Your task to perform on an android device: toggle priority inbox in the gmail app Image 0: 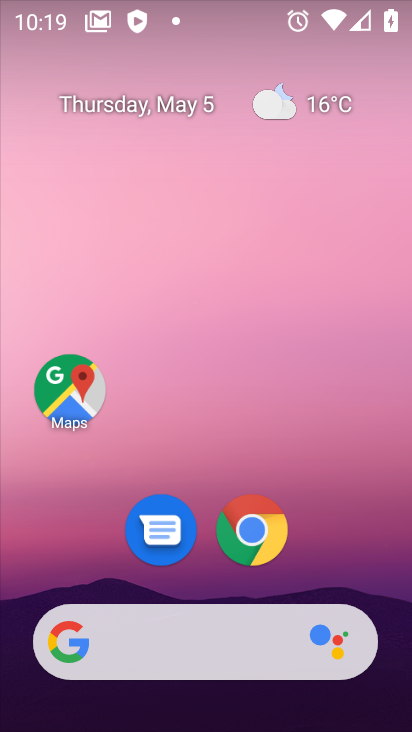
Step 0: drag from (351, 550) to (277, 233)
Your task to perform on an android device: toggle priority inbox in the gmail app Image 1: 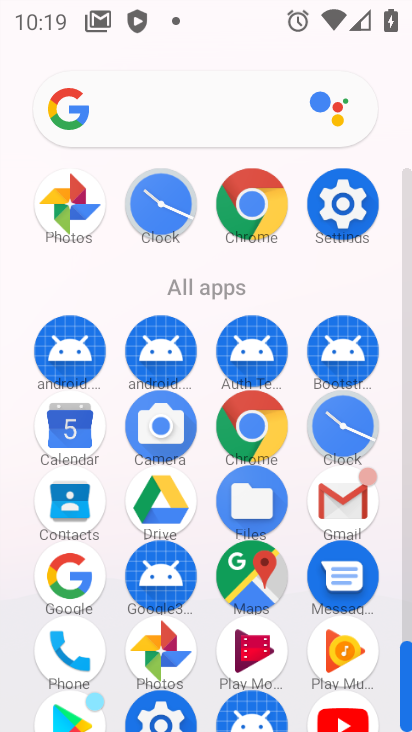
Step 1: click (354, 513)
Your task to perform on an android device: toggle priority inbox in the gmail app Image 2: 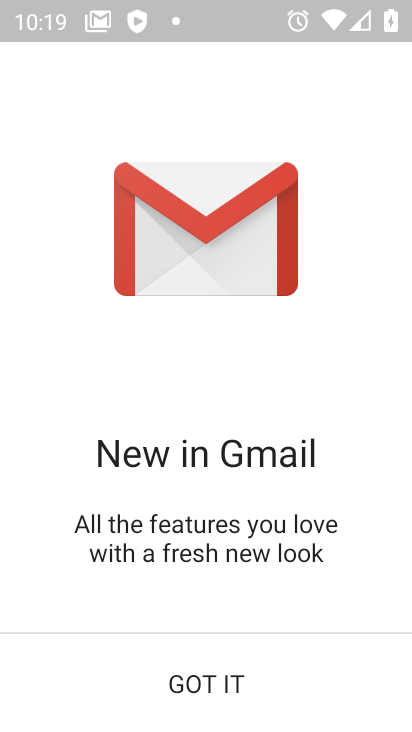
Step 2: click (251, 680)
Your task to perform on an android device: toggle priority inbox in the gmail app Image 3: 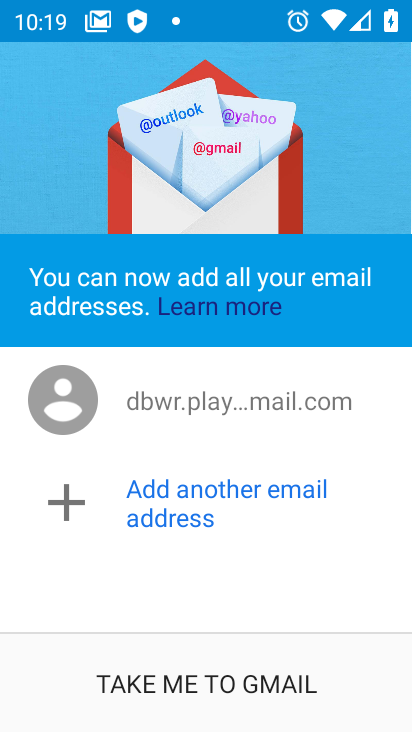
Step 3: click (251, 680)
Your task to perform on an android device: toggle priority inbox in the gmail app Image 4: 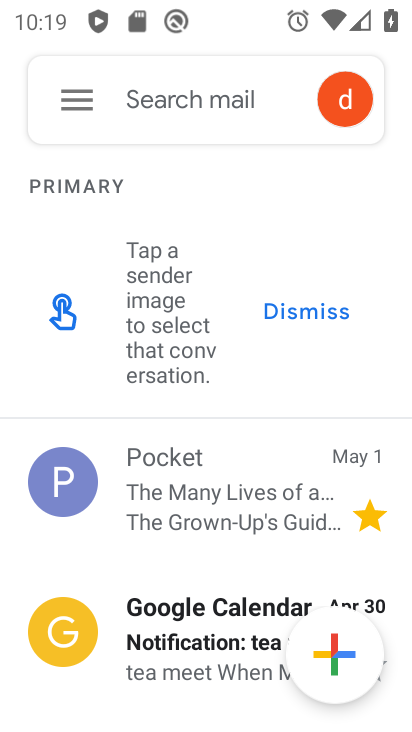
Step 4: click (75, 101)
Your task to perform on an android device: toggle priority inbox in the gmail app Image 5: 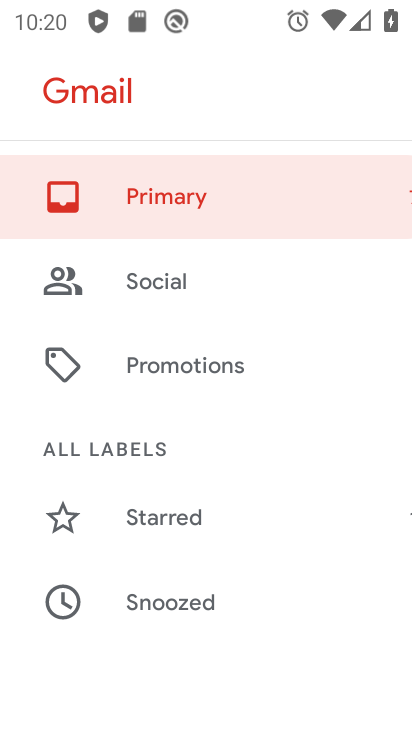
Step 5: drag from (228, 518) to (215, 153)
Your task to perform on an android device: toggle priority inbox in the gmail app Image 6: 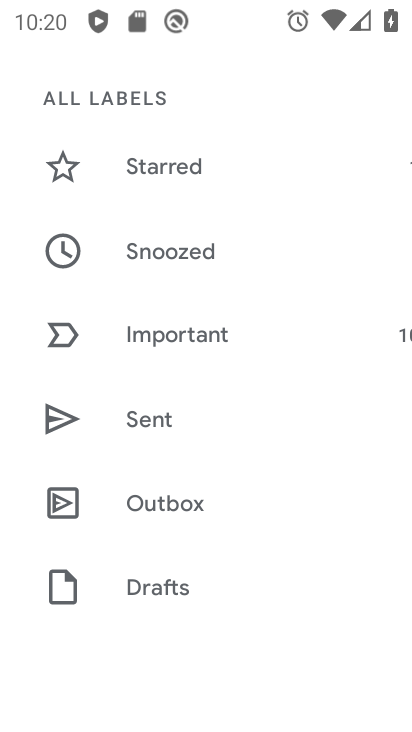
Step 6: drag from (250, 509) to (235, 72)
Your task to perform on an android device: toggle priority inbox in the gmail app Image 7: 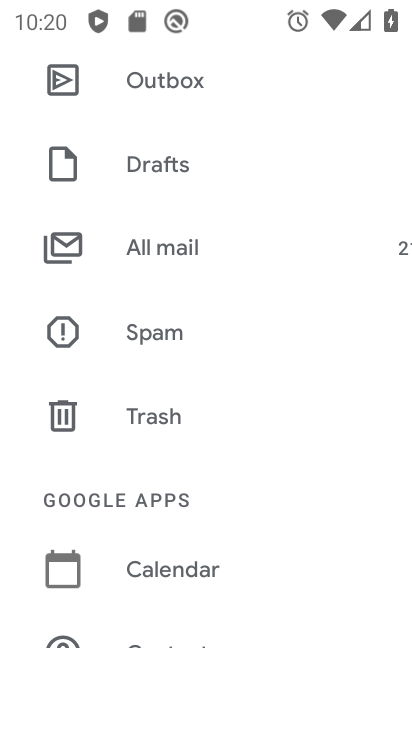
Step 7: drag from (218, 575) to (180, 89)
Your task to perform on an android device: toggle priority inbox in the gmail app Image 8: 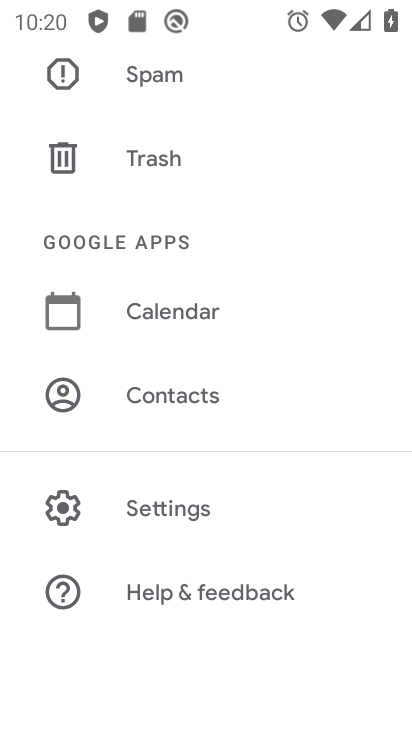
Step 8: drag from (232, 536) to (203, 198)
Your task to perform on an android device: toggle priority inbox in the gmail app Image 9: 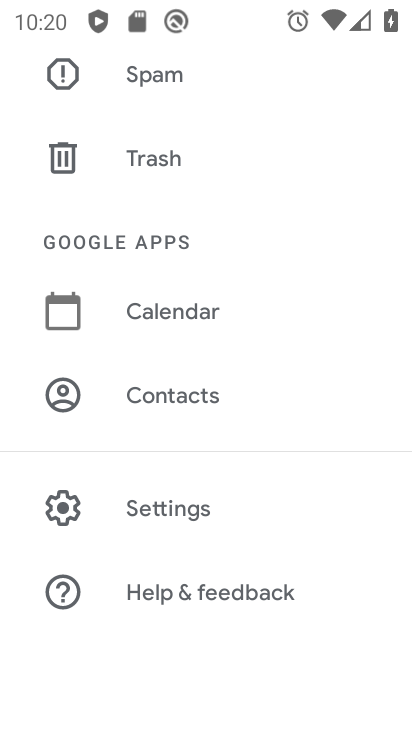
Step 9: click (164, 502)
Your task to perform on an android device: toggle priority inbox in the gmail app Image 10: 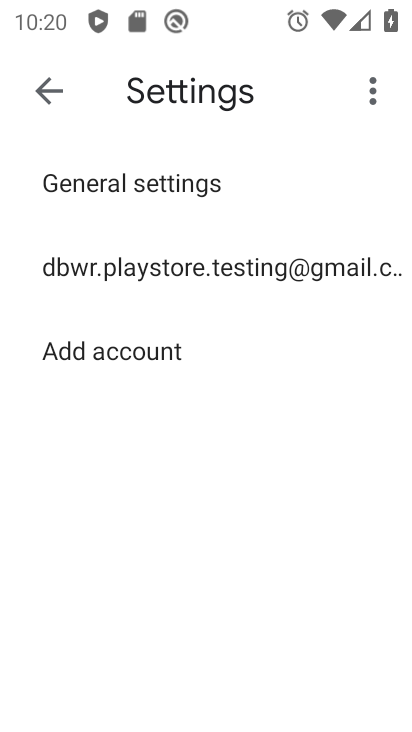
Step 10: click (131, 275)
Your task to perform on an android device: toggle priority inbox in the gmail app Image 11: 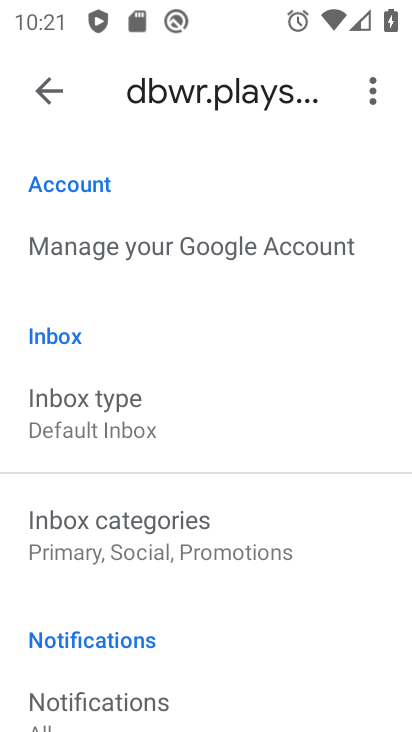
Step 11: drag from (160, 610) to (181, 208)
Your task to perform on an android device: toggle priority inbox in the gmail app Image 12: 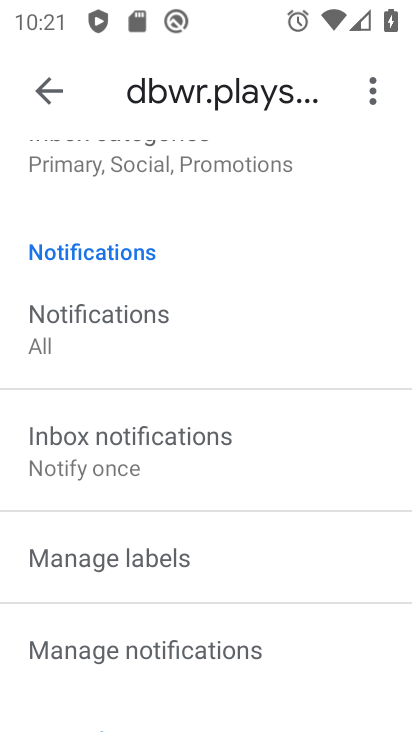
Step 12: drag from (168, 226) to (195, 647)
Your task to perform on an android device: toggle priority inbox in the gmail app Image 13: 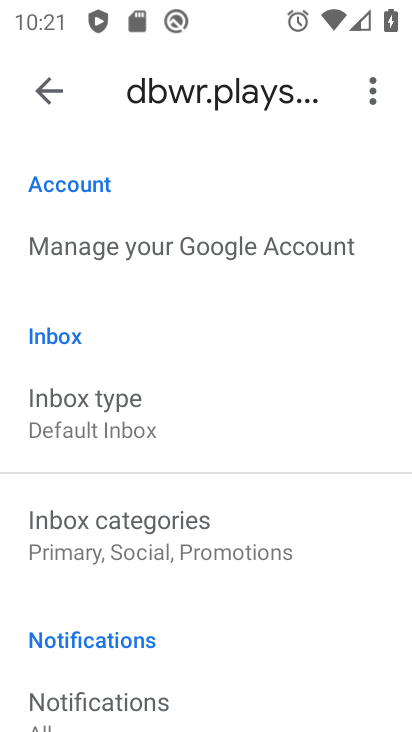
Step 13: click (76, 430)
Your task to perform on an android device: toggle priority inbox in the gmail app Image 14: 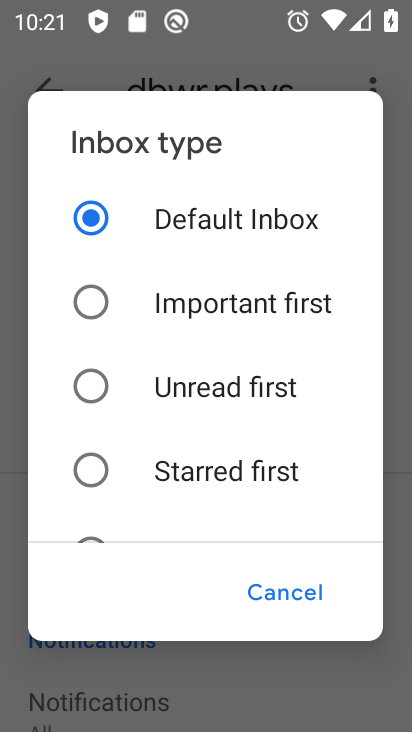
Step 14: drag from (154, 489) to (221, 86)
Your task to perform on an android device: toggle priority inbox in the gmail app Image 15: 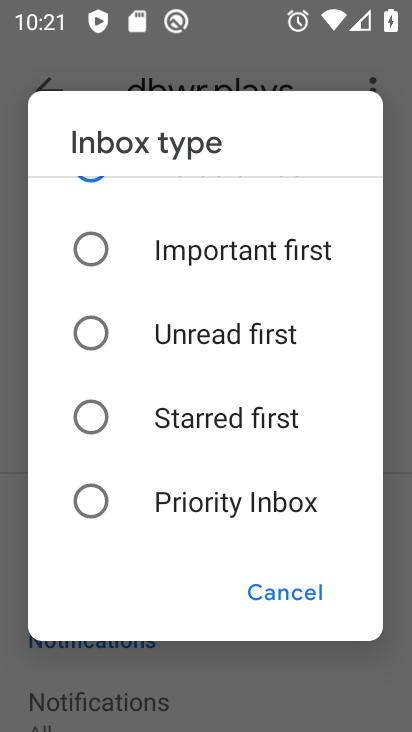
Step 15: click (184, 511)
Your task to perform on an android device: toggle priority inbox in the gmail app Image 16: 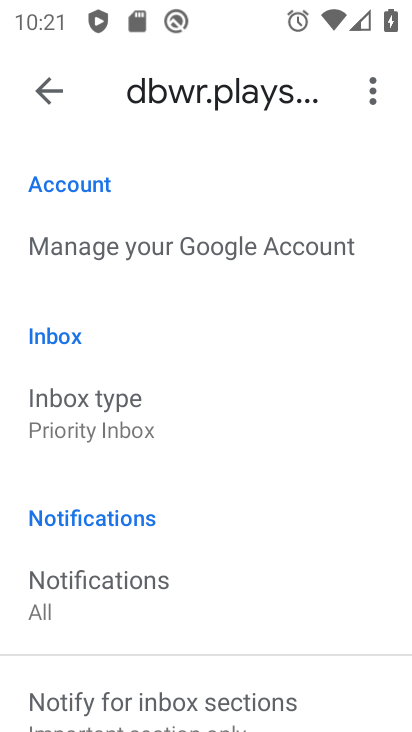
Step 16: task complete